Your task to perform on an android device: check storage Image 0: 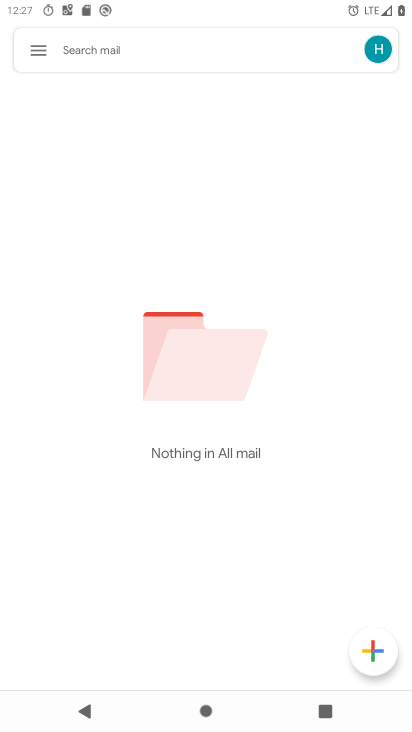
Step 0: press home button
Your task to perform on an android device: check storage Image 1: 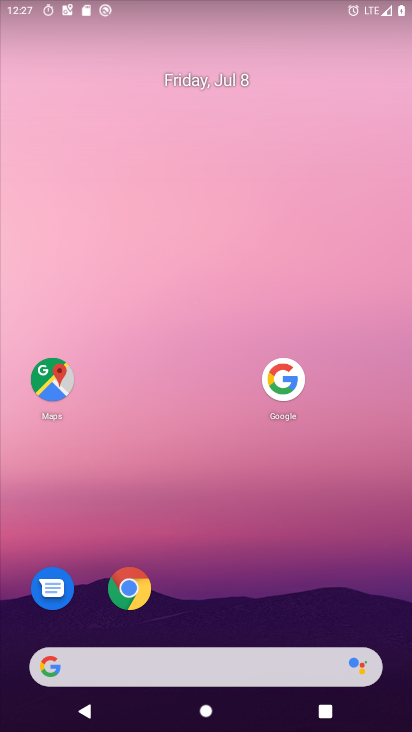
Step 1: drag from (153, 669) to (266, 40)
Your task to perform on an android device: check storage Image 2: 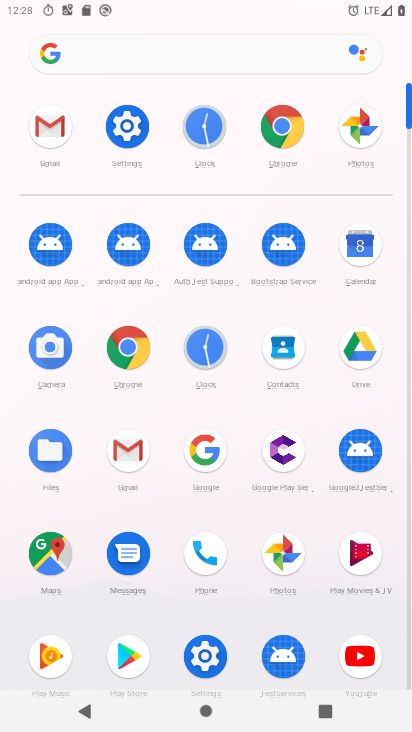
Step 2: click (138, 132)
Your task to perform on an android device: check storage Image 3: 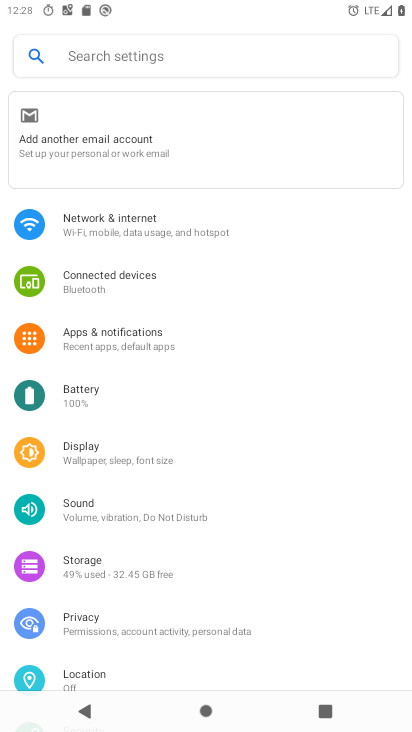
Step 3: click (105, 574)
Your task to perform on an android device: check storage Image 4: 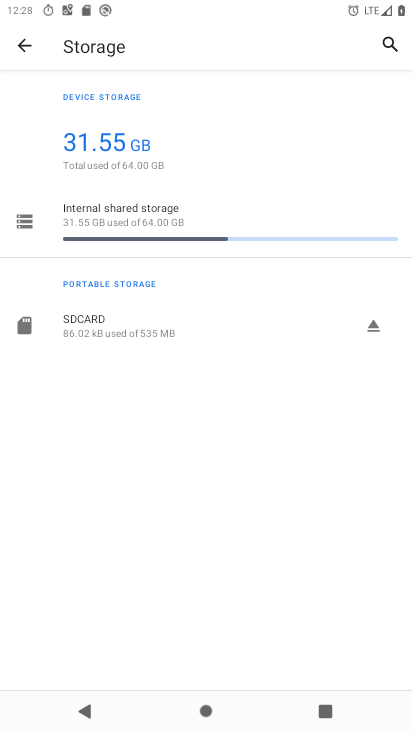
Step 4: task complete